Your task to perform on an android device: set an alarm Image 0: 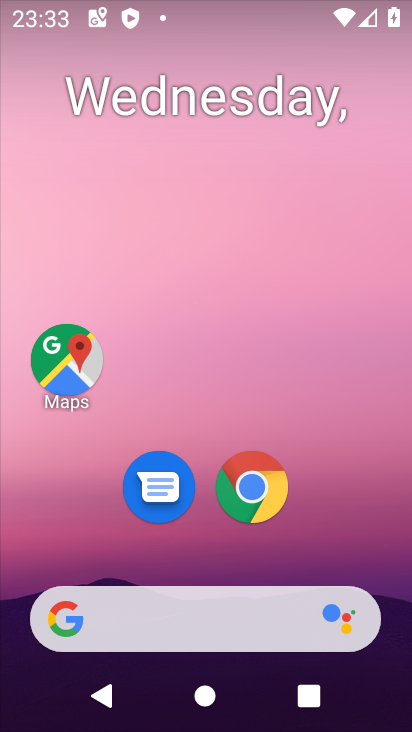
Step 0: drag from (355, 563) to (336, 15)
Your task to perform on an android device: set an alarm Image 1: 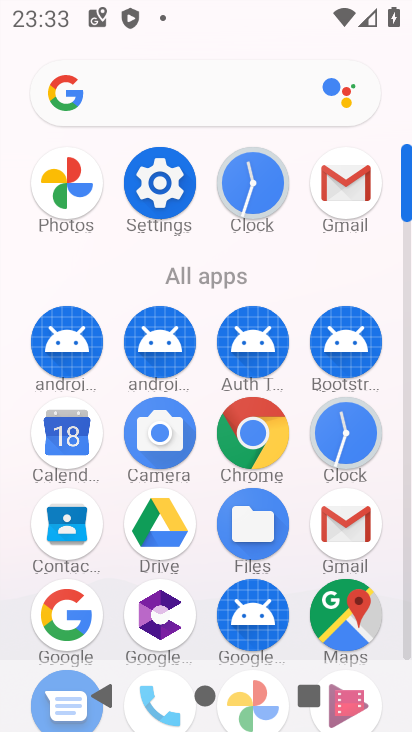
Step 1: click (256, 188)
Your task to perform on an android device: set an alarm Image 2: 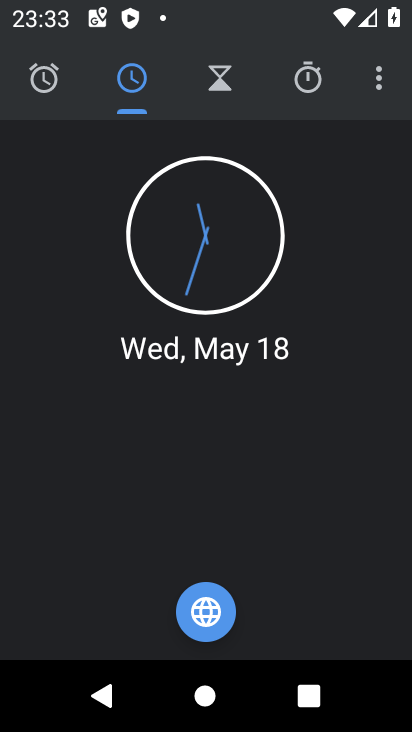
Step 2: click (39, 85)
Your task to perform on an android device: set an alarm Image 3: 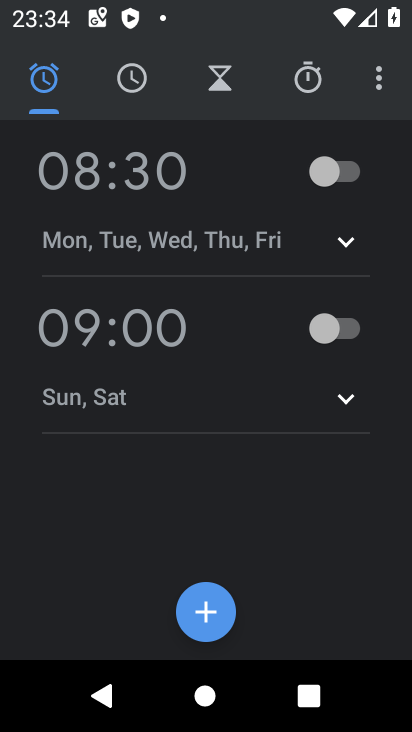
Step 3: click (207, 609)
Your task to perform on an android device: set an alarm Image 4: 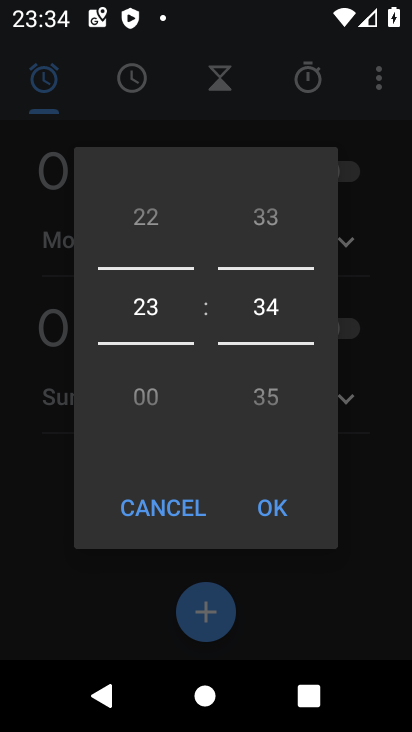
Step 4: drag from (140, 301) to (146, 561)
Your task to perform on an android device: set an alarm Image 5: 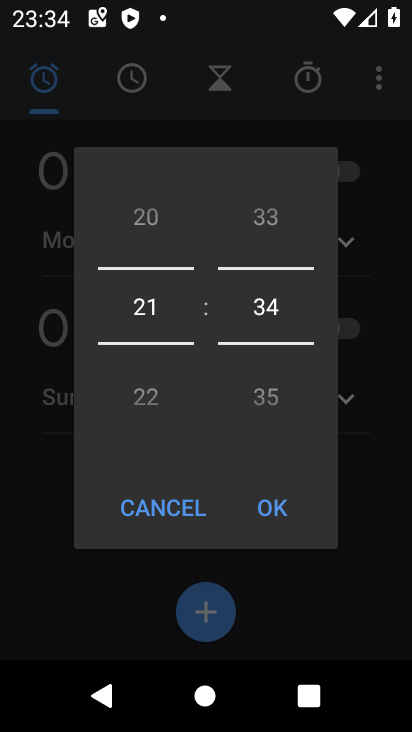
Step 5: drag from (142, 291) to (166, 455)
Your task to perform on an android device: set an alarm Image 6: 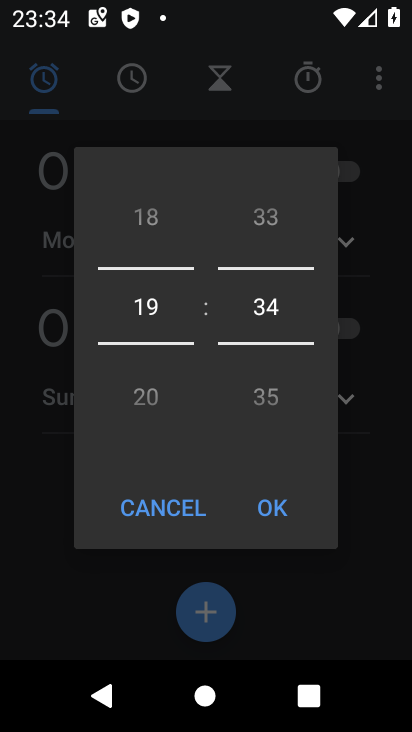
Step 6: drag from (151, 297) to (152, 504)
Your task to perform on an android device: set an alarm Image 7: 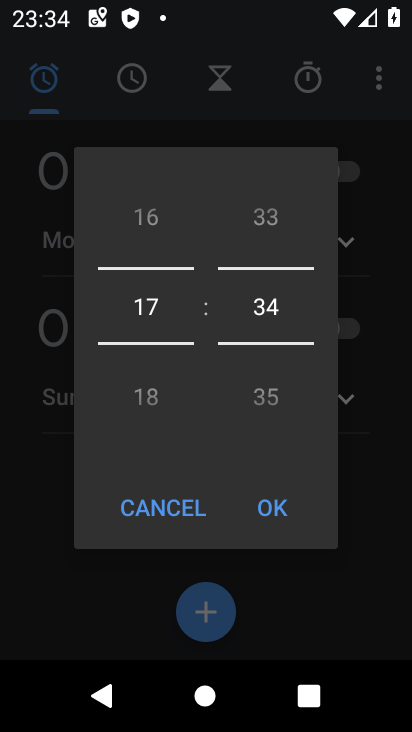
Step 7: drag from (137, 308) to (151, 480)
Your task to perform on an android device: set an alarm Image 8: 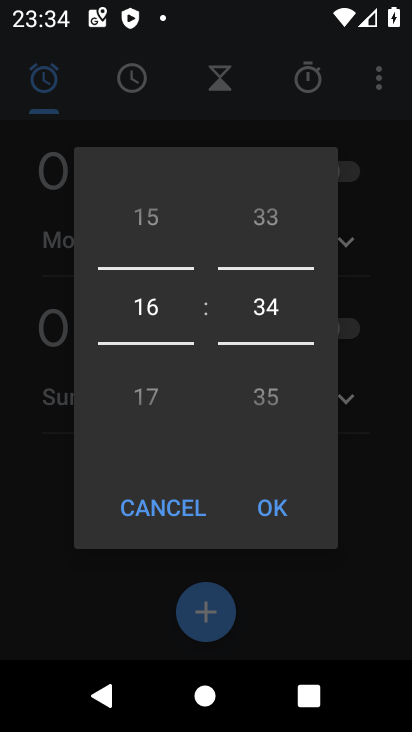
Step 8: drag from (265, 302) to (290, 550)
Your task to perform on an android device: set an alarm Image 9: 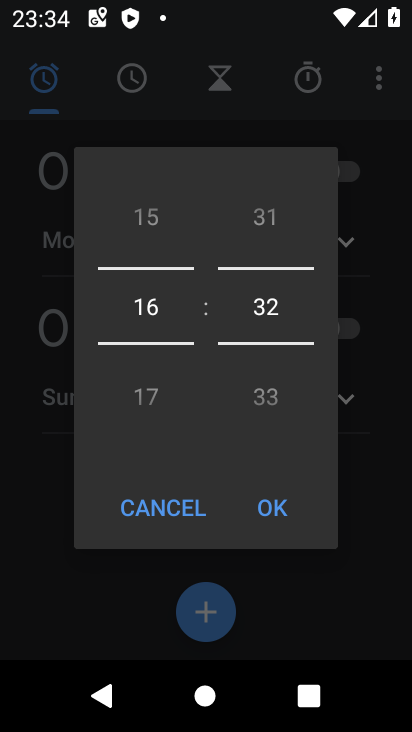
Step 9: drag from (275, 313) to (277, 529)
Your task to perform on an android device: set an alarm Image 10: 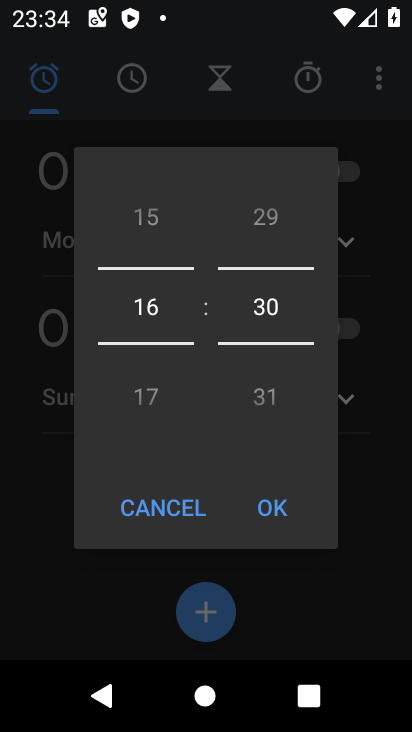
Step 10: click (275, 519)
Your task to perform on an android device: set an alarm Image 11: 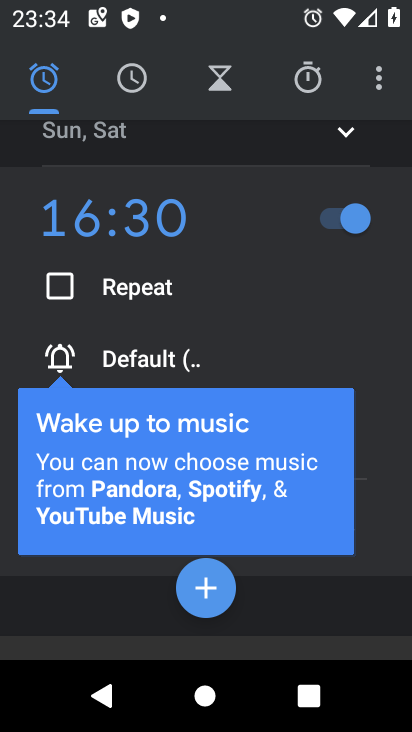
Step 11: task complete